Your task to perform on an android device: add a contact in the contacts app Image 0: 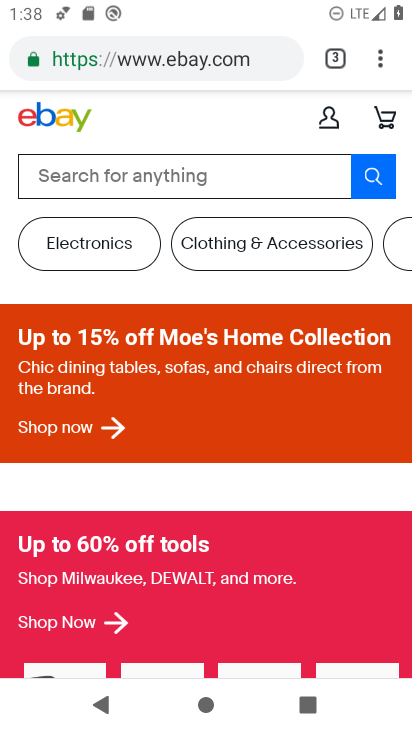
Step 0: press home button
Your task to perform on an android device: add a contact in the contacts app Image 1: 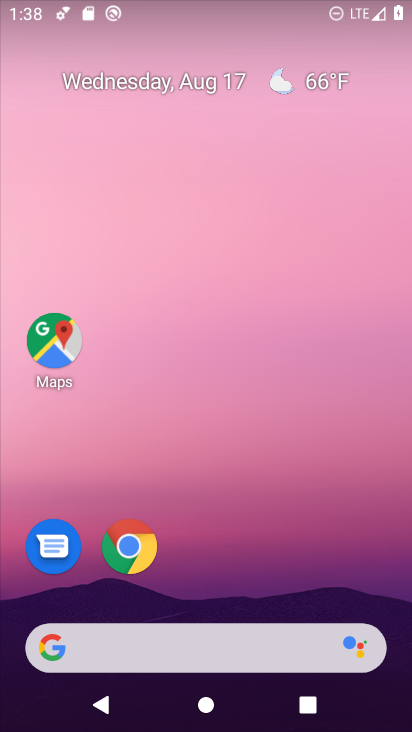
Step 1: drag from (236, 554) to (215, 112)
Your task to perform on an android device: add a contact in the contacts app Image 2: 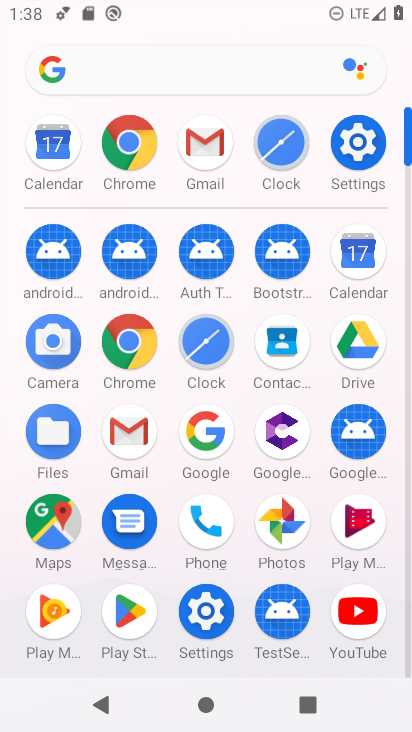
Step 2: click (287, 350)
Your task to perform on an android device: add a contact in the contacts app Image 3: 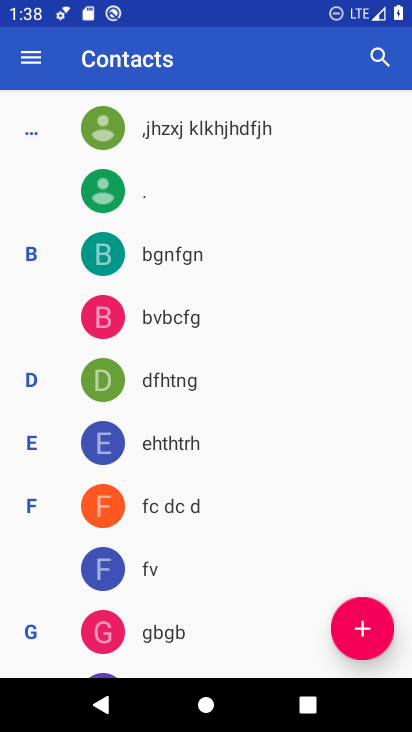
Step 3: click (362, 635)
Your task to perform on an android device: add a contact in the contacts app Image 4: 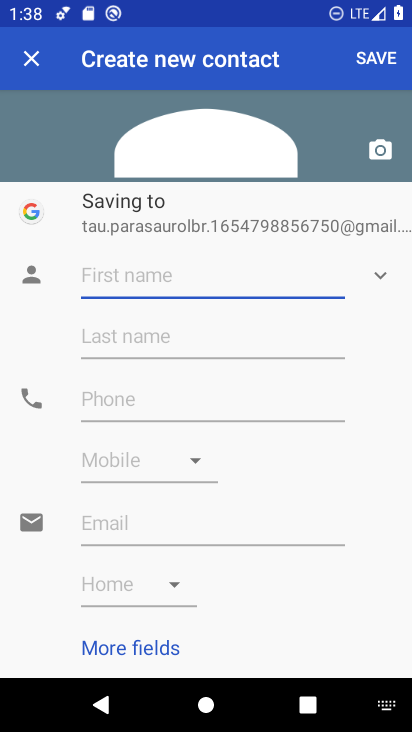
Step 4: type "mm"
Your task to perform on an android device: add a contact in the contacts app Image 5: 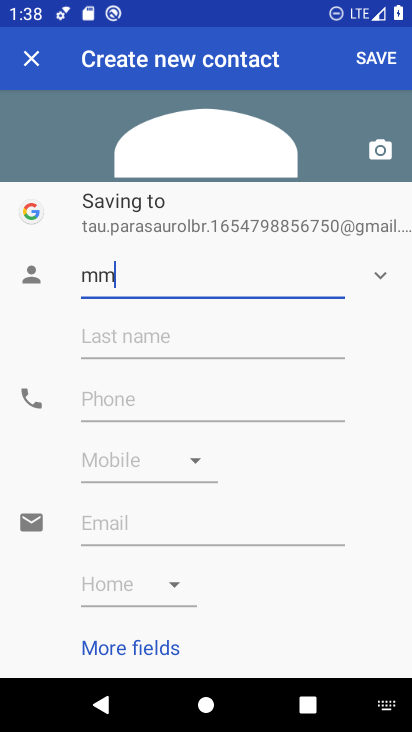
Step 5: click (120, 393)
Your task to perform on an android device: add a contact in the contacts app Image 6: 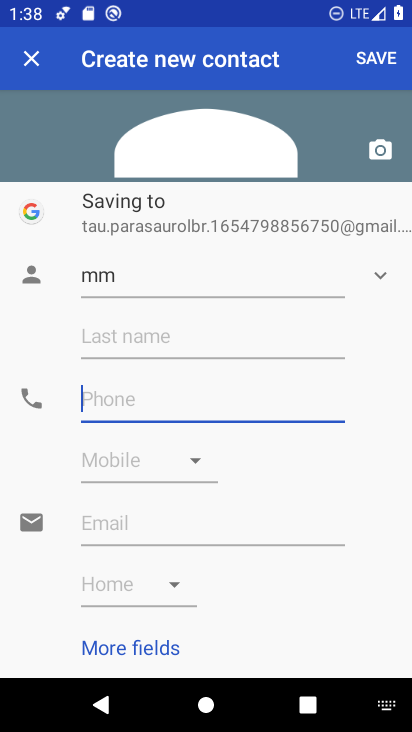
Step 6: type "0"
Your task to perform on an android device: add a contact in the contacts app Image 7: 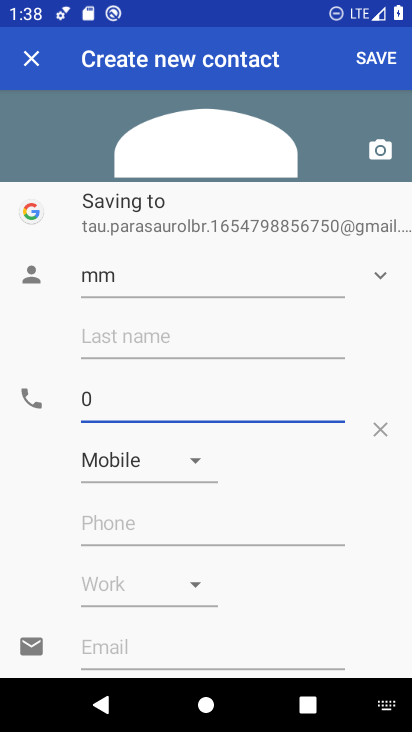
Step 7: click (378, 54)
Your task to perform on an android device: add a contact in the contacts app Image 8: 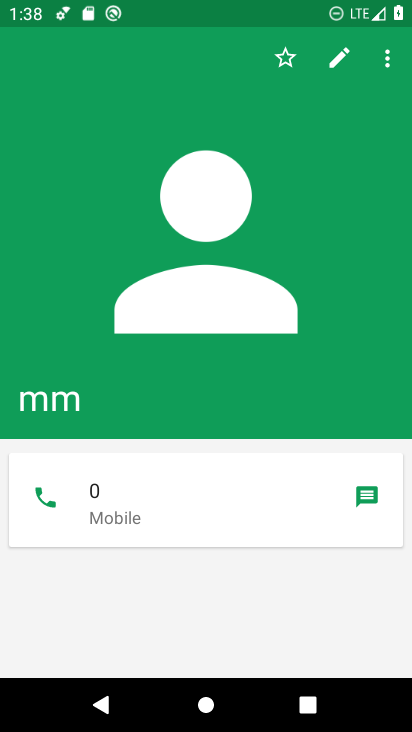
Step 8: task complete